Your task to perform on an android device: toggle notification dots Image 0: 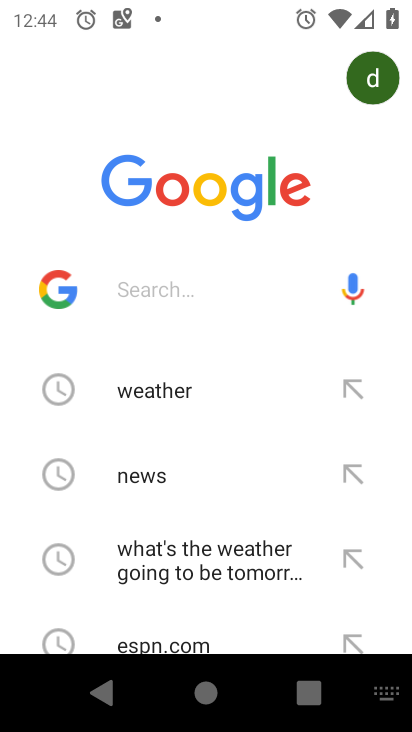
Step 0: press home button
Your task to perform on an android device: toggle notification dots Image 1: 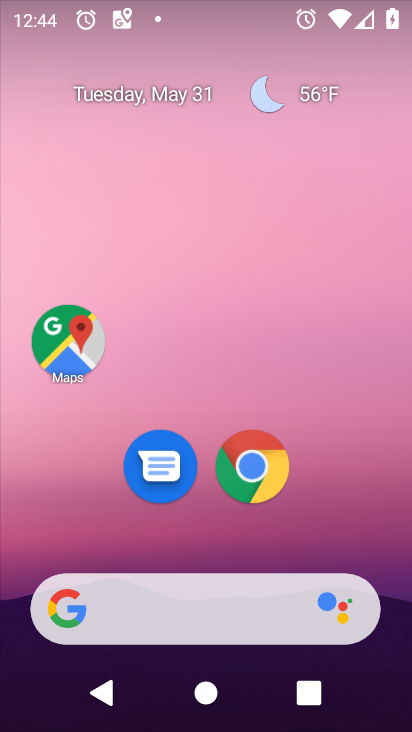
Step 1: drag from (195, 575) to (155, 28)
Your task to perform on an android device: toggle notification dots Image 2: 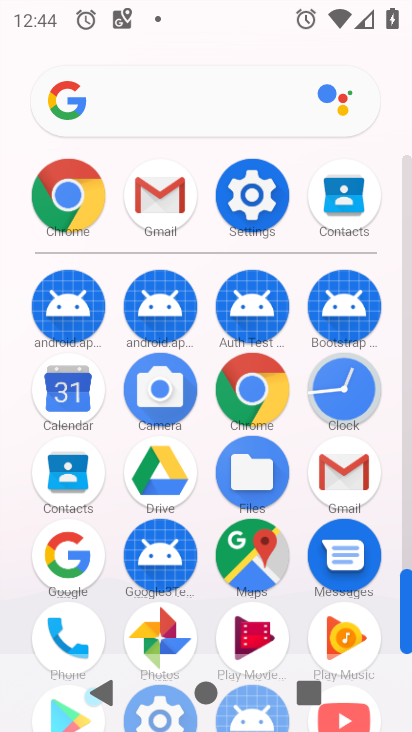
Step 2: click (226, 212)
Your task to perform on an android device: toggle notification dots Image 3: 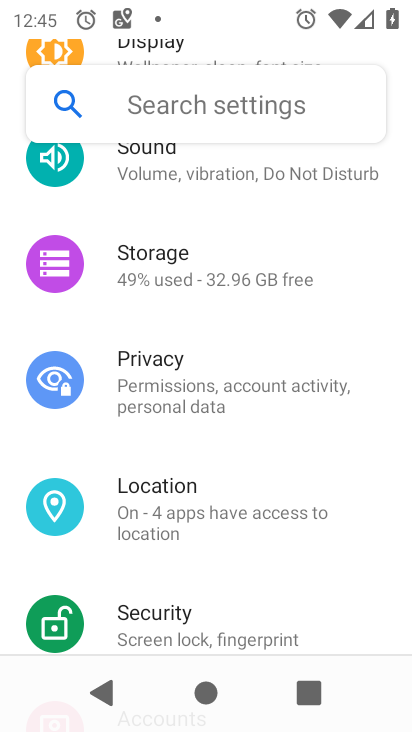
Step 3: drag from (179, 348) to (162, 731)
Your task to perform on an android device: toggle notification dots Image 4: 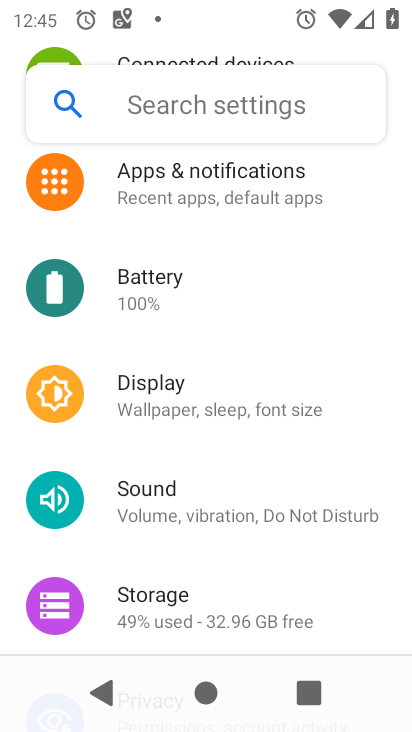
Step 4: click (147, 183)
Your task to perform on an android device: toggle notification dots Image 5: 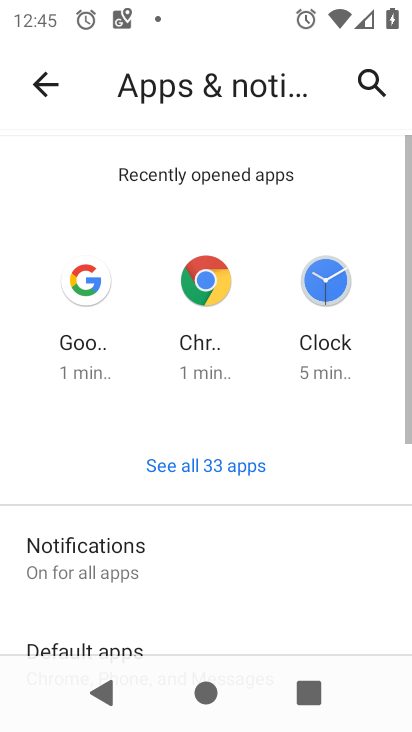
Step 5: click (199, 535)
Your task to perform on an android device: toggle notification dots Image 6: 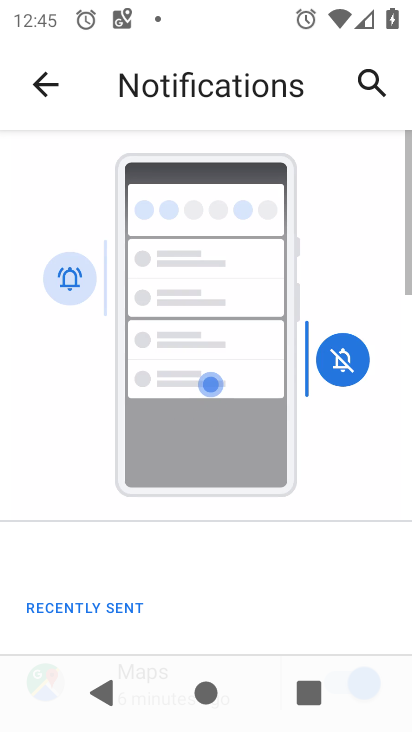
Step 6: drag from (224, 540) to (160, 45)
Your task to perform on an android device: toggle notification dots Image 7: 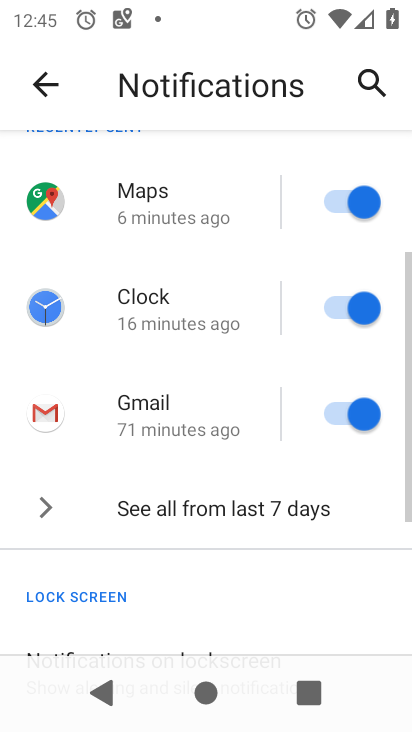
Step 7: drag from (214, 586) to (215, 57)
Your task to perform on an android device: toggle notification dots Image 8: 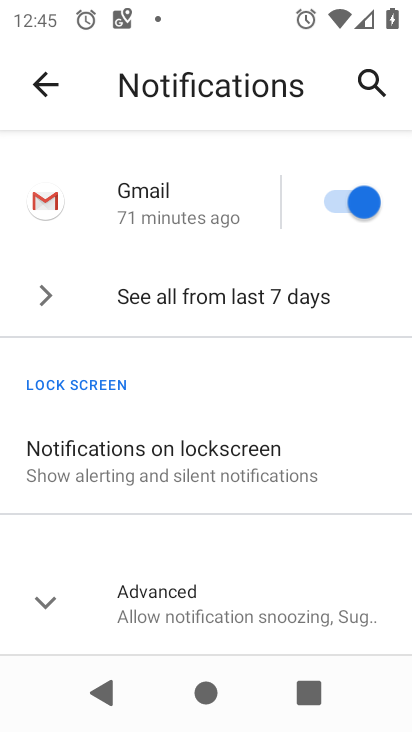
Step 8: click (178, 622)
Your task to perform on an android device: toggle notification dots Image 9: 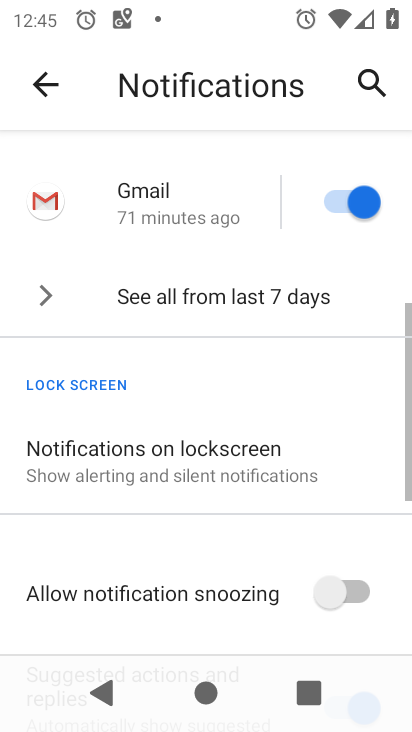
Step 9: drag from (206, 559) to (205, 149)
Your task to perform on an android device: toggle notification dots Image 10: 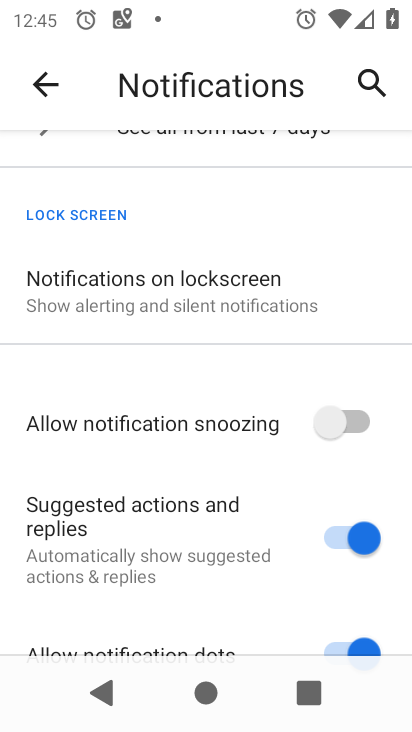
Step 10: drag from (212, 584) to (203, 180)
Your task to perform on an android device: toggle notification dots Image 11: 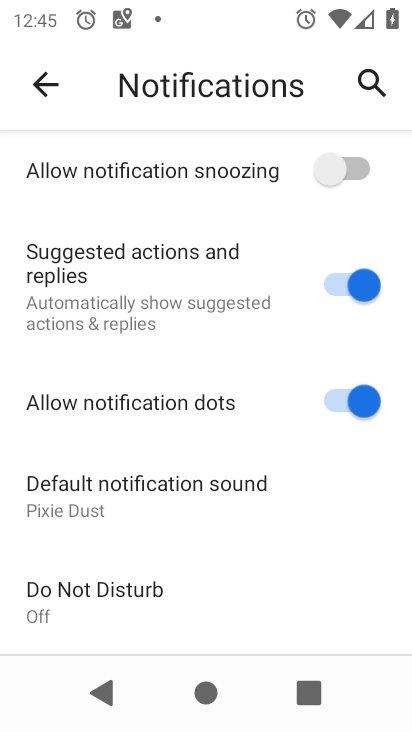
Step 11: click (335, 400)
Your task to perform on an android device: toggle notification dots Image 12: 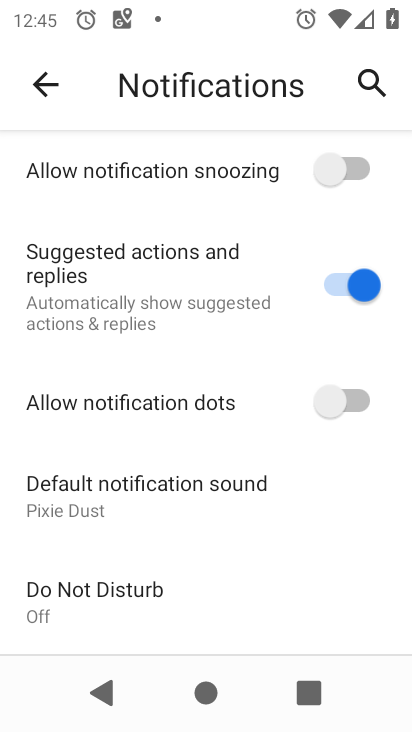
Step 12: task complete